Your task to perform on an android device: Go to Yahoo.com Image 0: 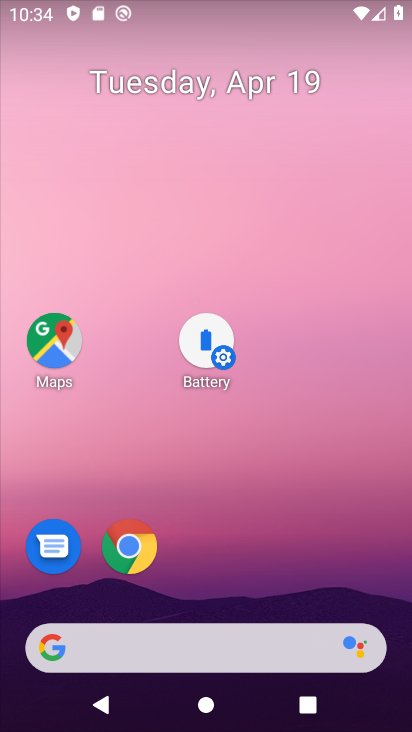
Step 0: click (126, 555)
Your task to perform on an android device: Go to Yahoo.com Image 1: 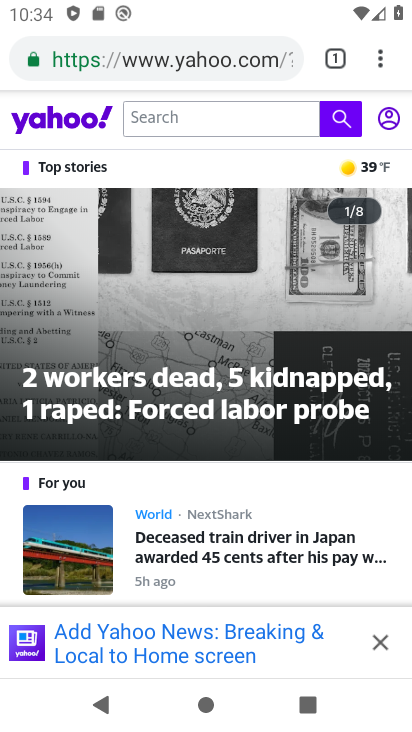
Step 1: task complete